Your task to perform on an android device: star an email in the gmail app Image 0: 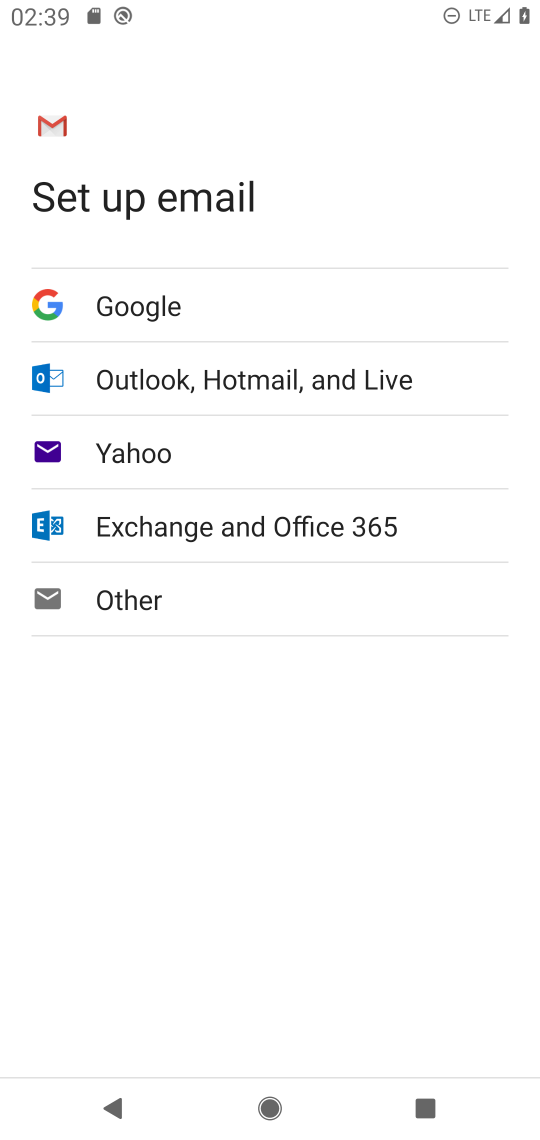
Step 0: press home button
Your task to perform on an android device: star an email in the gmail app Image 1: 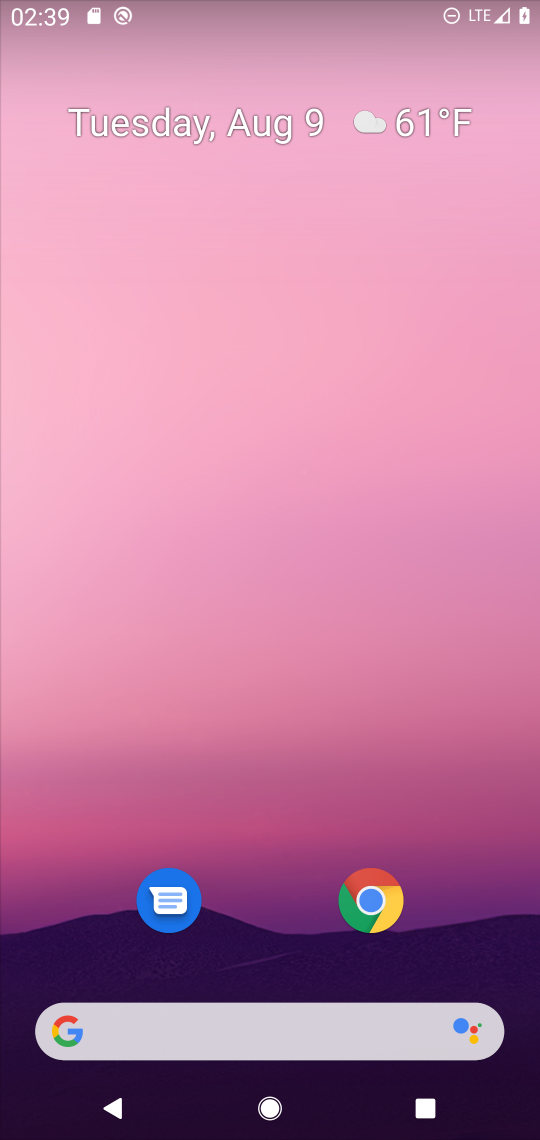
Step 1: drag from (271, 916) to (280, 440)
Your task to perform on an android device: star an email in the gmail app Image 2: 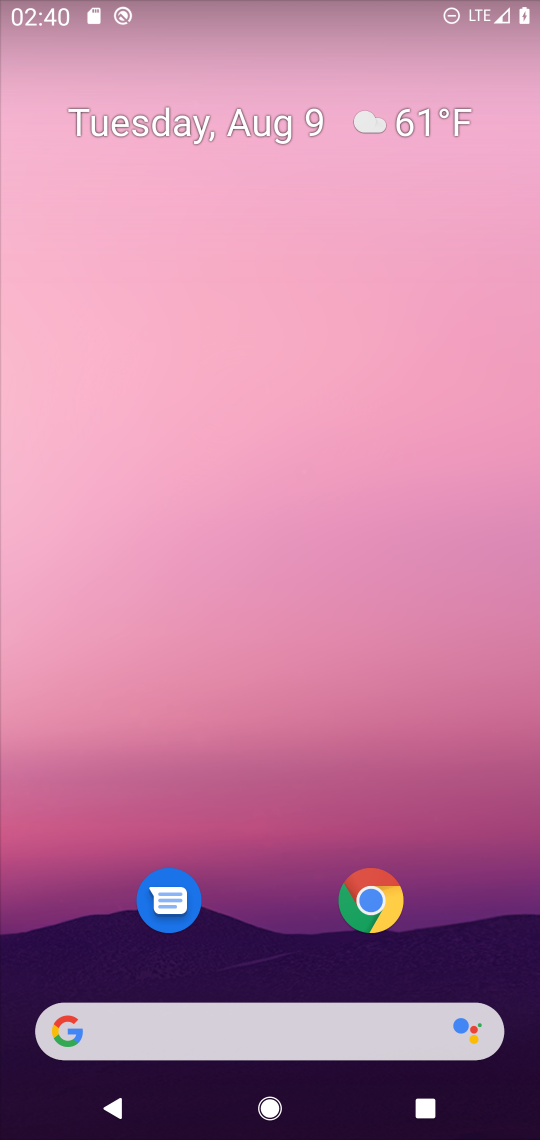
Step 2: drag from (475, 923) to (477, 352)
Your task to perform on an android device: star an email in the gmail app Image 3: 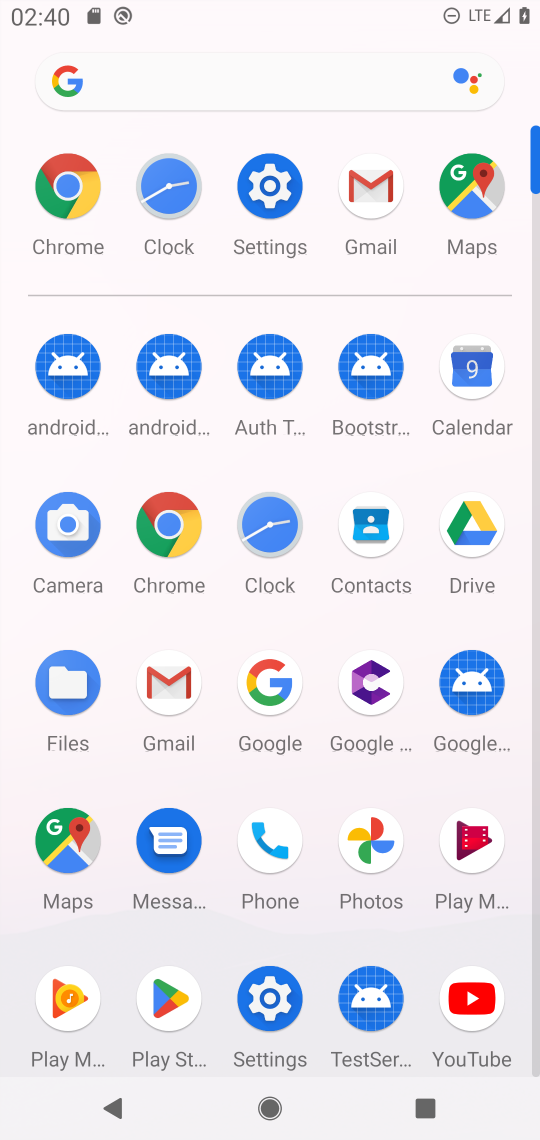
Step 3: click (154, 688)
Your task to perform on an android device: star an email in the gmail app Image 4: 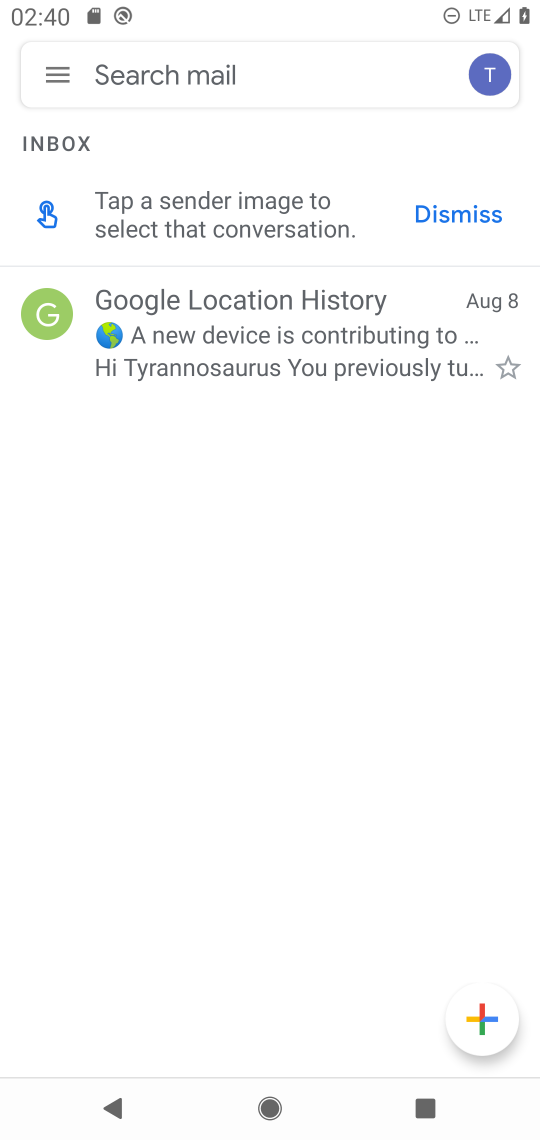
Step 4: click (517, 363)
Your task to perform on an android device: star an email in the gmail app Image 5: 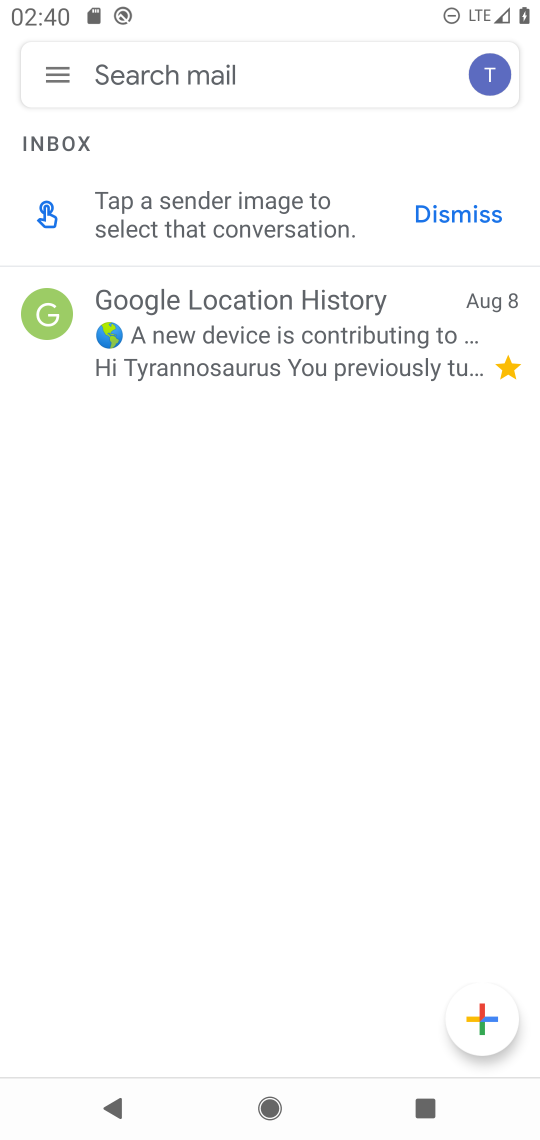
Step 5: task complete